Your task to perform on an android device: Go to Yahoo.com Image 0: 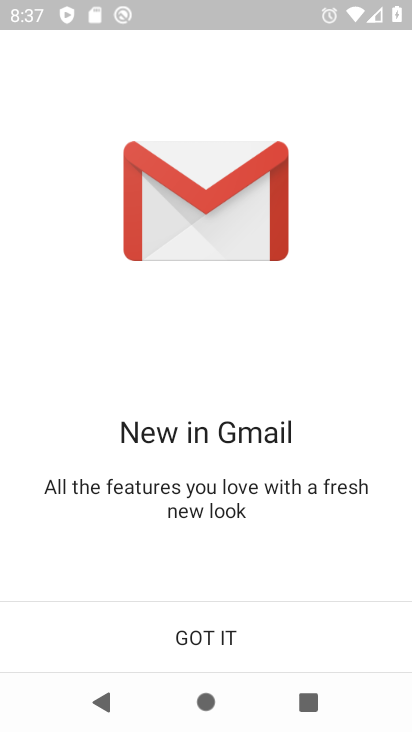
Step 0: press home button
Your task to perform on an android device: Go to Yahoo.com Image 1: 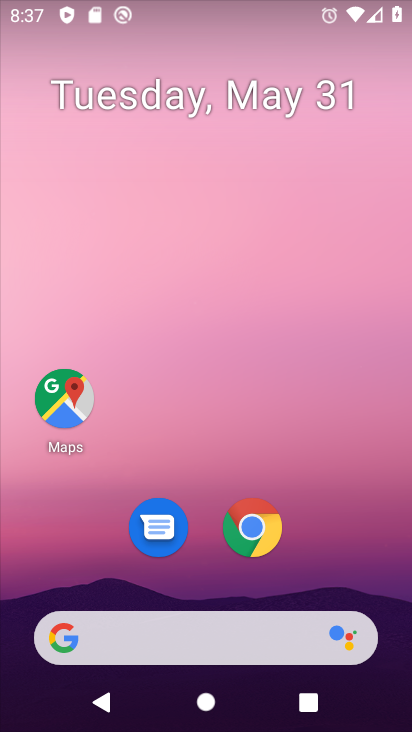
Step 1: click (242, 544)
Your task to perform on an android device: Go to Yahoo.com Image 2: 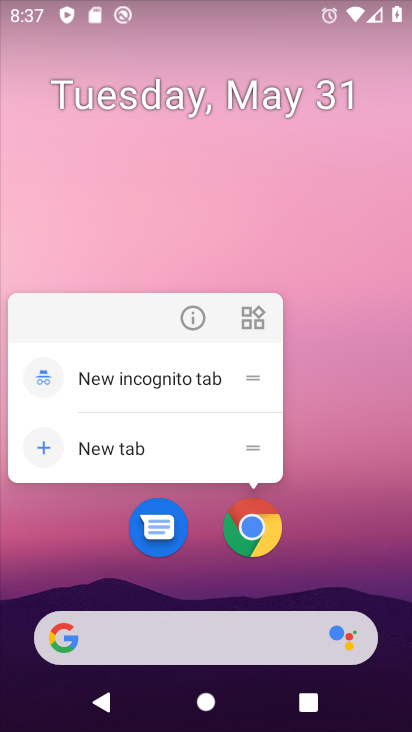
Step 2: click (256, 533)
Your task to perform on an android device: Go to Yahoo.com Image 3: 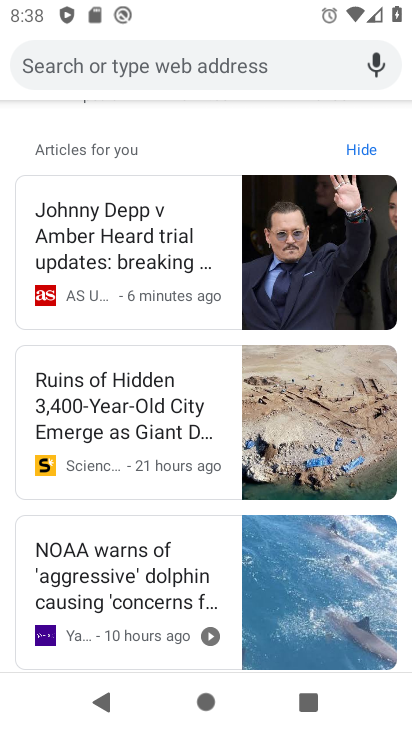
Step 3: drag from (173, 235) to (143, 567)
Your task to perform on an android device: Go to Yahoo.com Image 4: 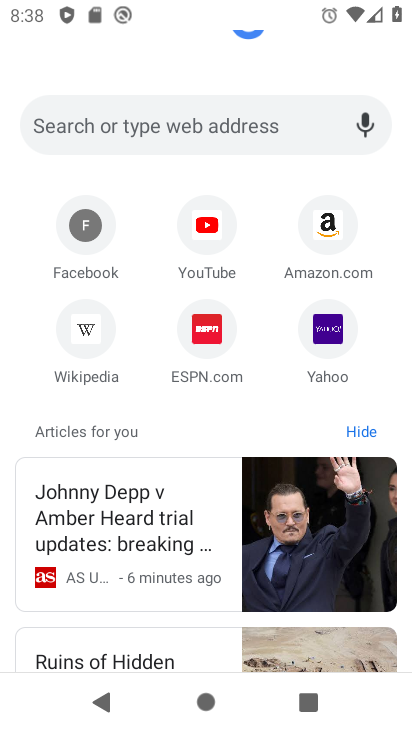
Step 4: click (328, 351)
Your task to perform on an android device: Go to Yahoo.com Image 5: 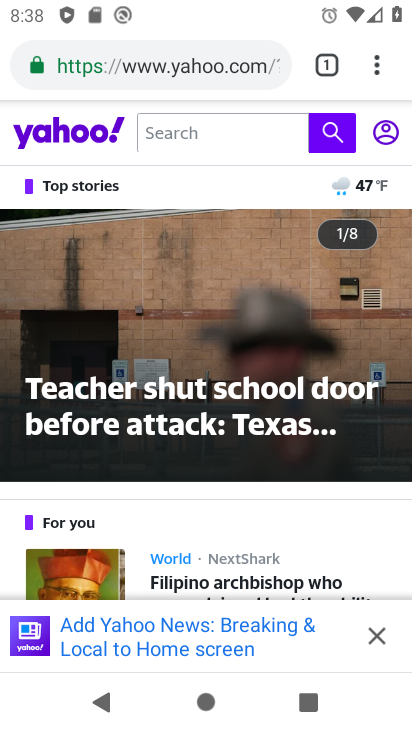
Step 5: task complete